Your task to perform on an android device: Open Maps and search for coffee Image 0: 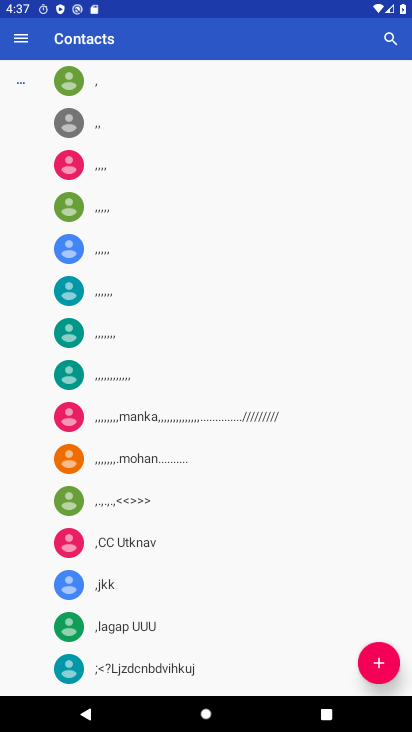
Step 0: press back button
Your task to perform on an android device: Open Maps and search for coffee Image 1: 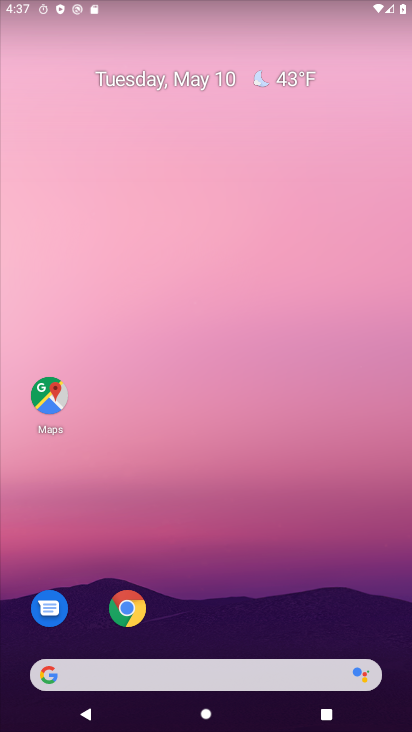
Step 1: click (44, 395)
Your task to perform on an android device: Open Maps and search for coffee Image 2: 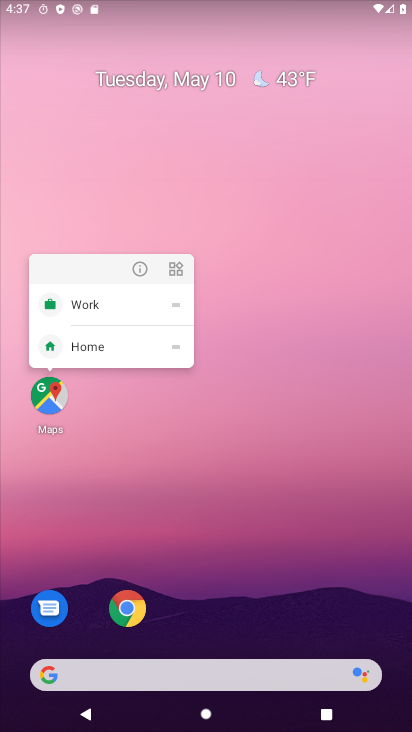
Step 2: click (44, 396)
Your task to perform on an android device: Open Maps and search for coffee Image 3: 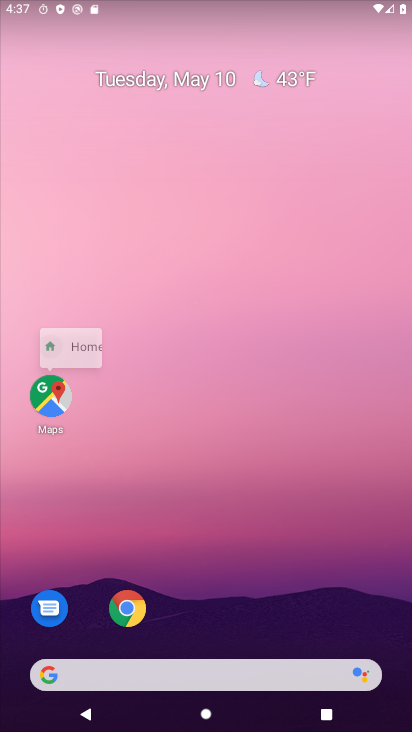
Step 3: click (47, 394)
Your task to perform on an android device: Open Maps and search for coffee Image 4: 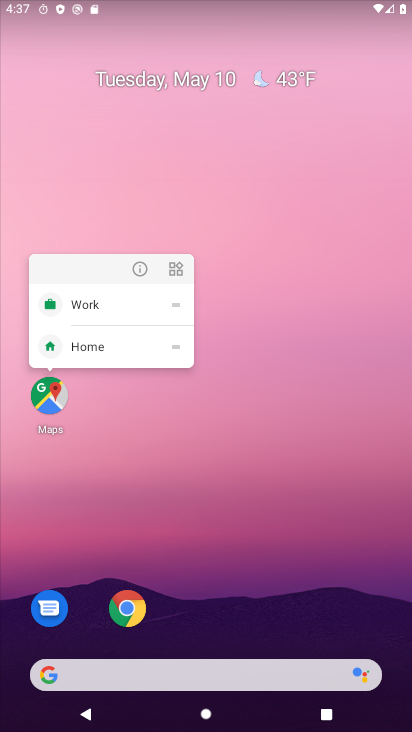
Step 4: click (49, 393)
Your task to perform on an android device: Open Maps and search for coffee Image 5: 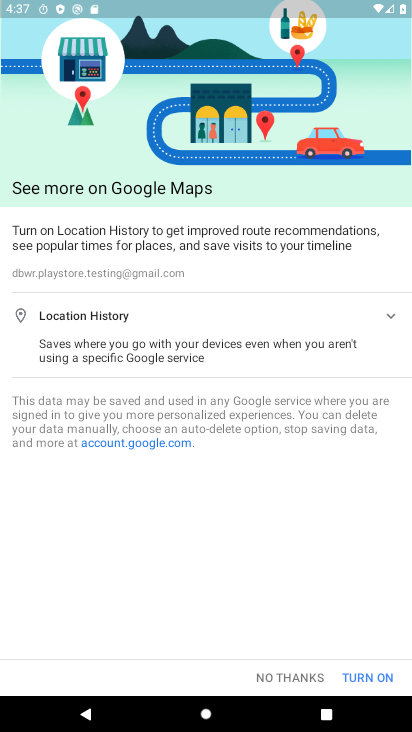
Step 5: press back button
Your task to perform on an android device: Open Maps and search for coffee Image 6: 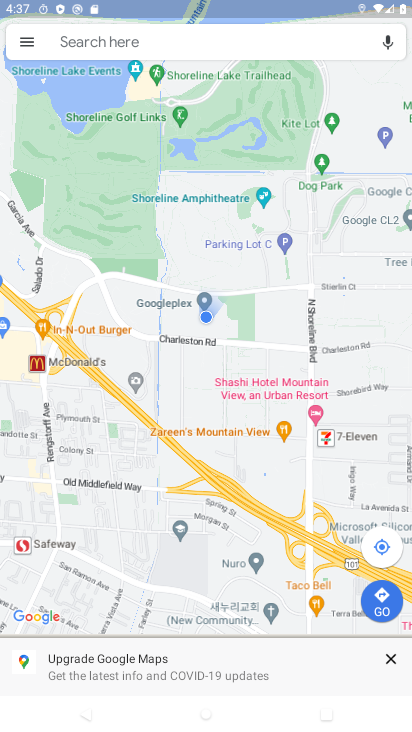
Step 6: click (57, 41)
Your task to perform on an android device: Open Maps and search for coffee Image 7: 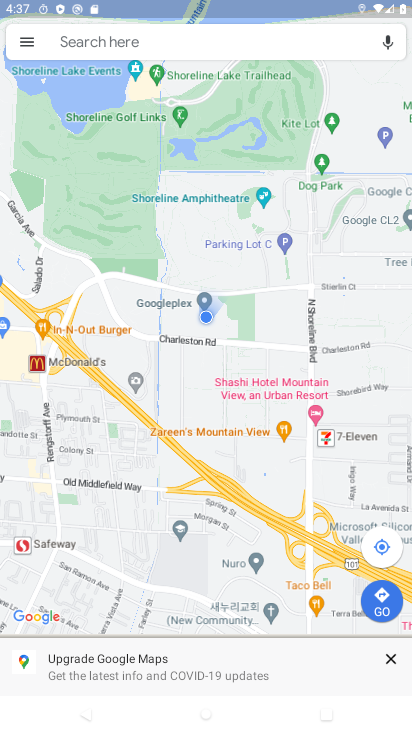
Step 7: click (64, 36)
Your task to perform on an android device: Open Maps and search for coffee Image 8: 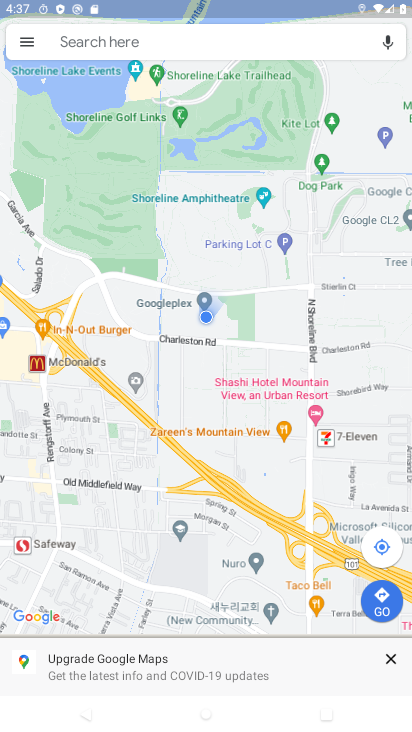
Step 8: click (64, 36)
Your task to perform on an android device: Open Maps and search for coffee Image 9: 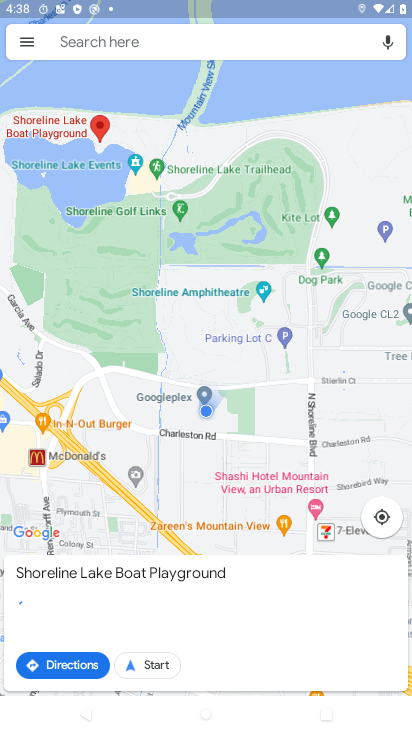
Step 9: click (63, 32)
Your task to perform on an android device: Open Maps and search for coffee Image 10: 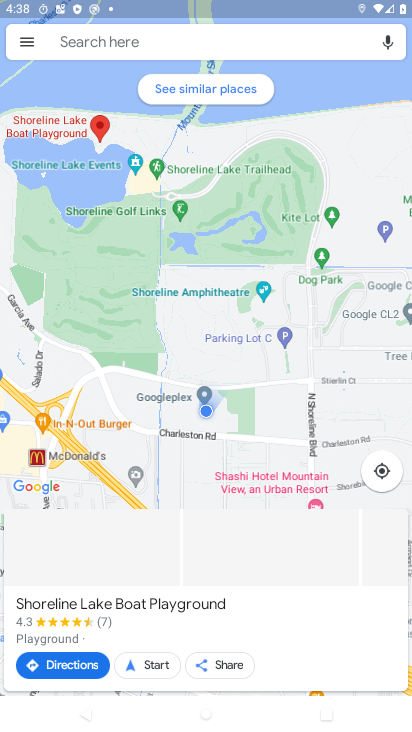
Step 10: click (65, 36)
Your task to perform on an android device: Open Maps and search for coffee Image 11: 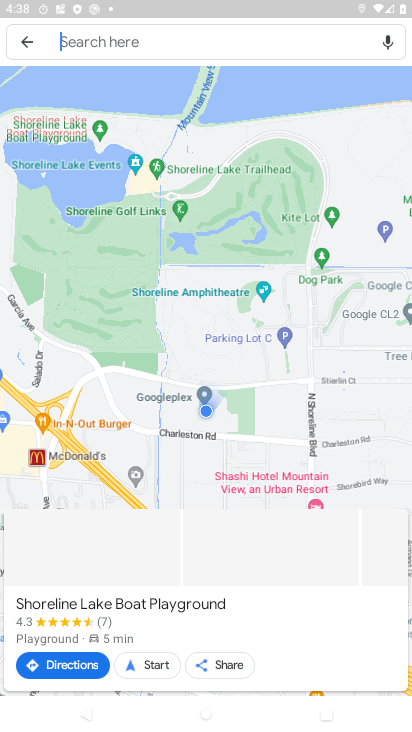
Step 11: click (65, 36)
Your task to perform on an android device: Open Maps and search for coffee Image 12: 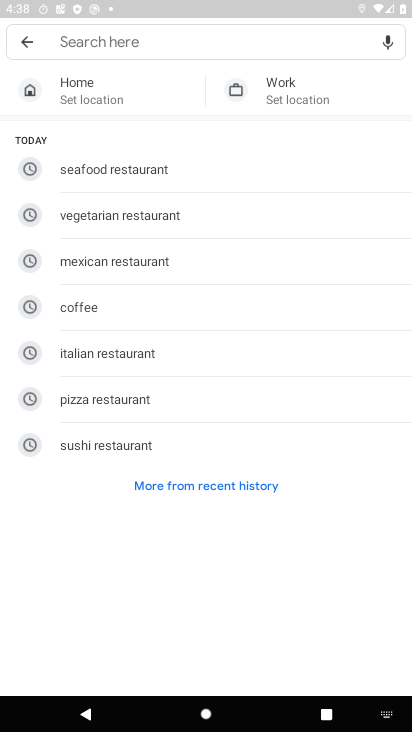
Step 12: click (73, 47)
Your task to perform on an android device: Open Maps and search for coffee Image 13: 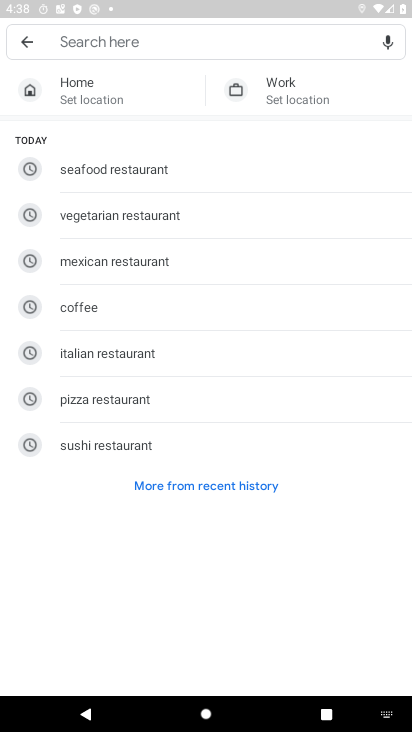
Step 13: type "coffee"
Your task to perform on an android device: Open Maps and search for coffee Image 14: 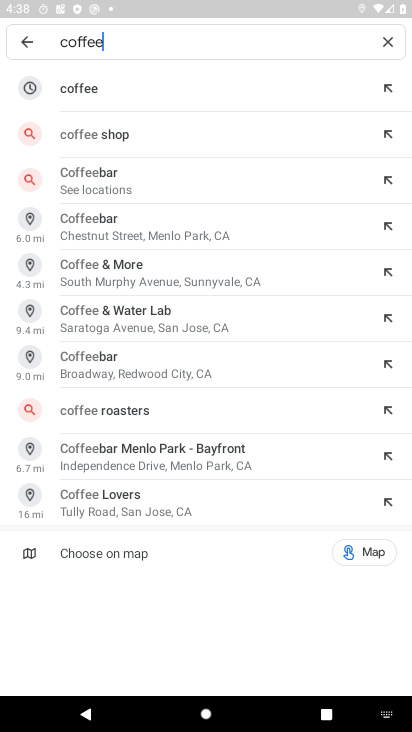
Step 14: click (90, 80)
Your task to perform on an android device: Open Maps and search for coffee Image 15: 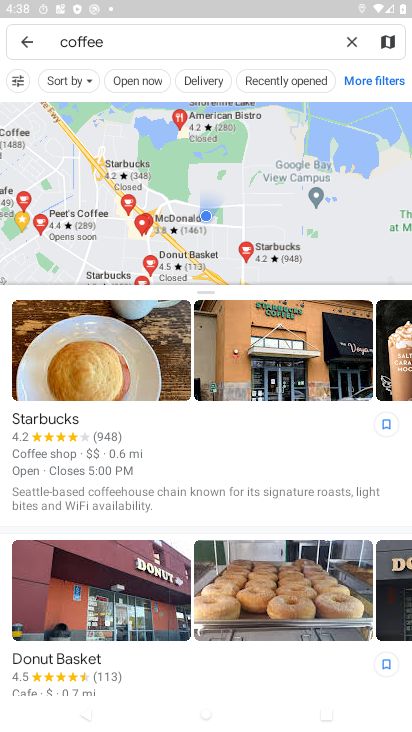
Step 15: task complete